Your task to perform on an android device: toggle priority inbox in the gmail app Image 0: 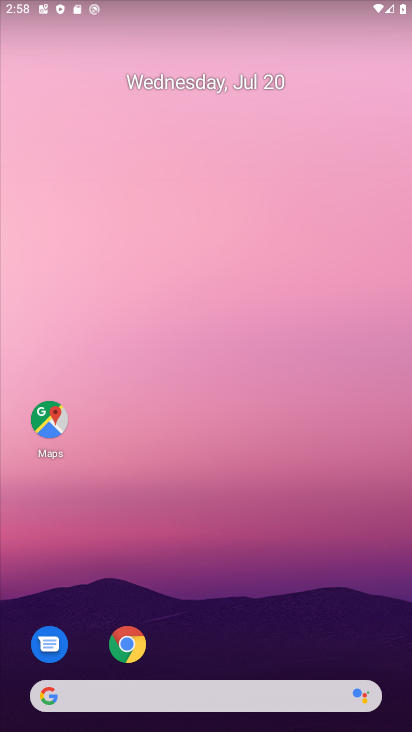
Step 0: task complete